Your task to perform on an android device: Go to Google Image 0: 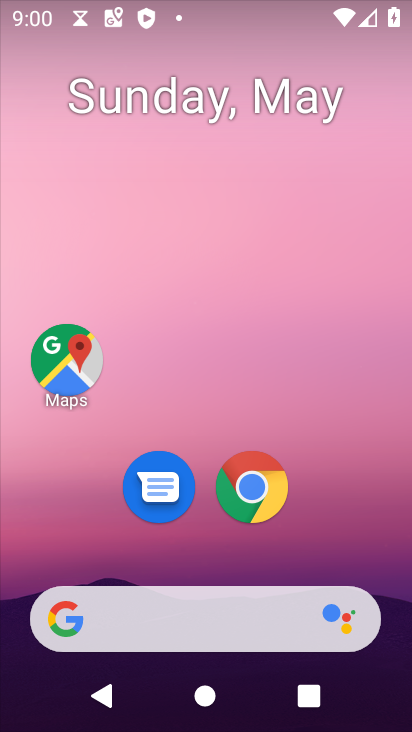
Step 0: drag from (367, 539) to (392, 66)
Your task to perform on an android device: Go to Google Image 1: 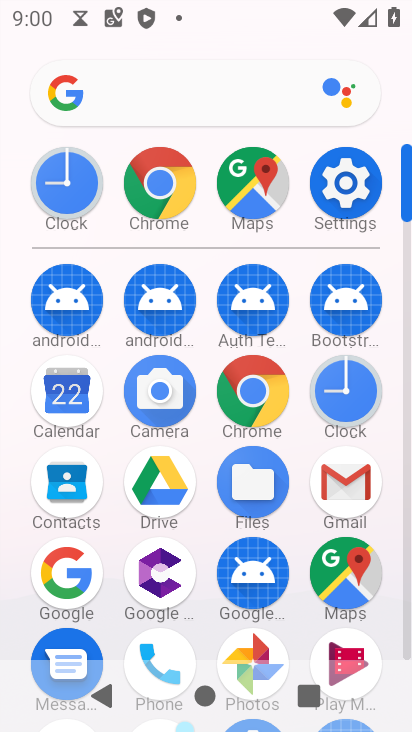
Step 1: click (58, 575)
Your task to perform on an android device: Go to Google Image 2: 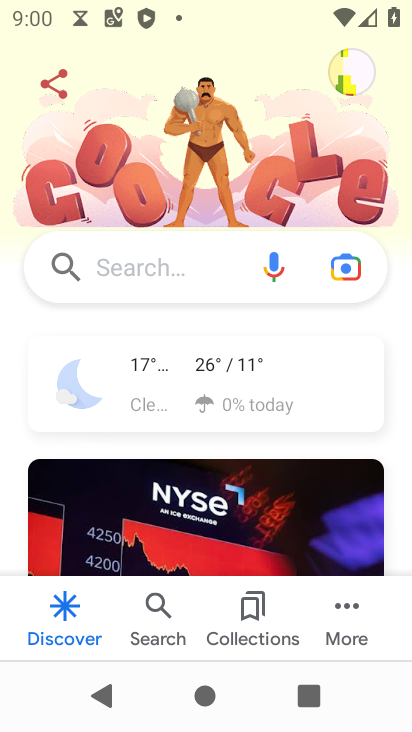
Step 2: task complete